Your task to perform on an android device: uninstall "ColorNote Notepad Notes" Image 0: 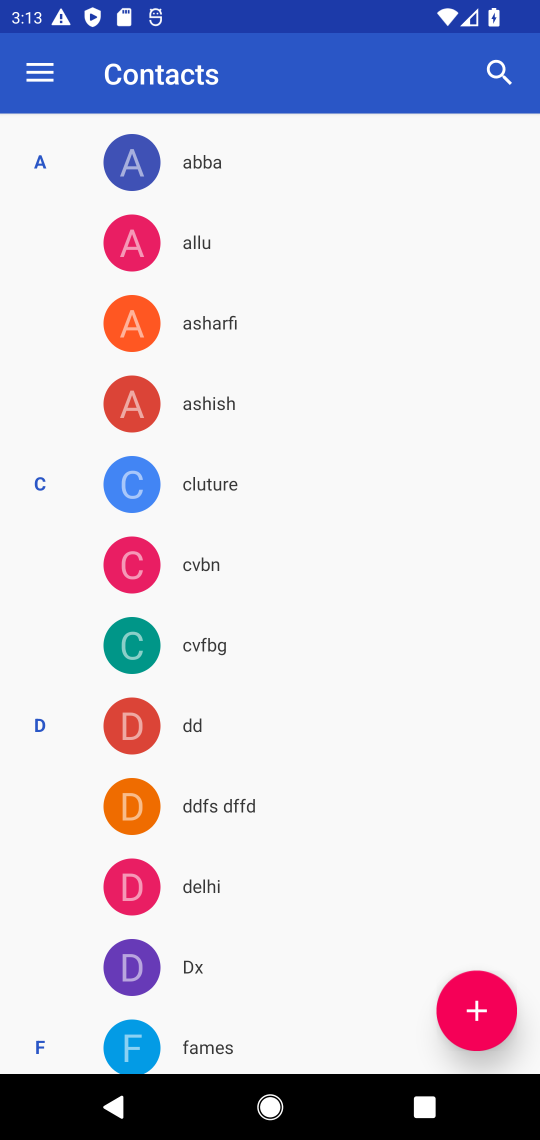
Step 0: press home button
Your task to perform on an android device: uninstall "ColorNote Notepad Notes" Image 1: 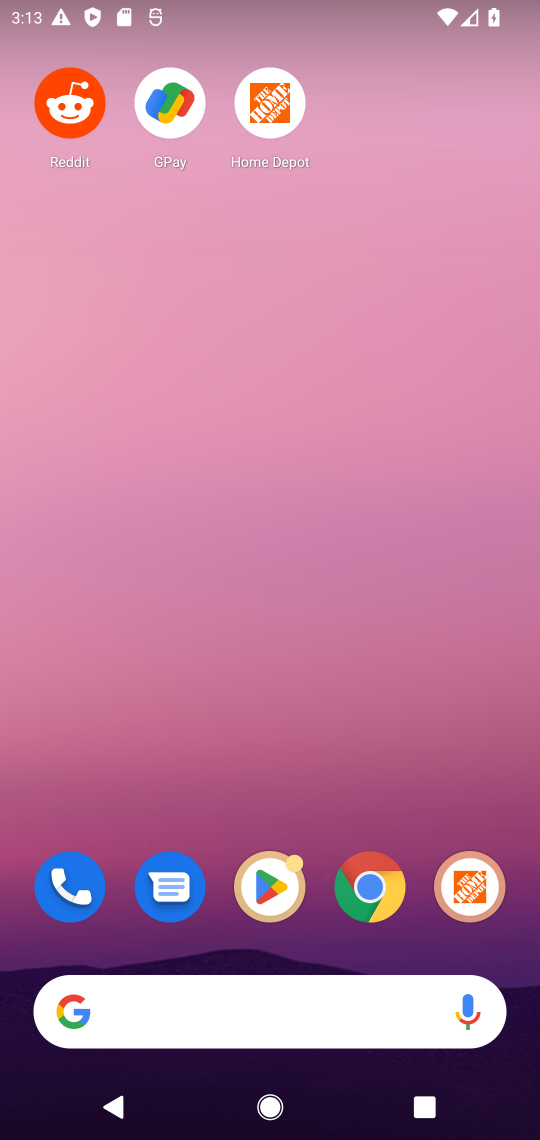
Step 1: click (262, 869)
Your task to perform on an android device: uninstall "ColorNote Notepad Notes" Image 2: 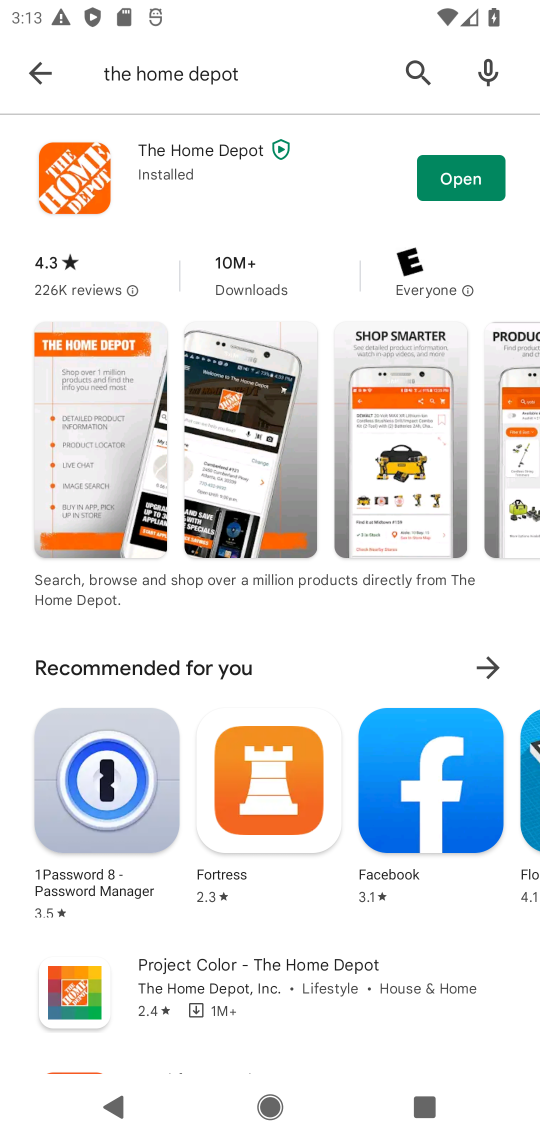
Step 2: click (29, 78)
Your task to perform on an android device: uninstall "ColorNote Notepad Notes" Image 3: 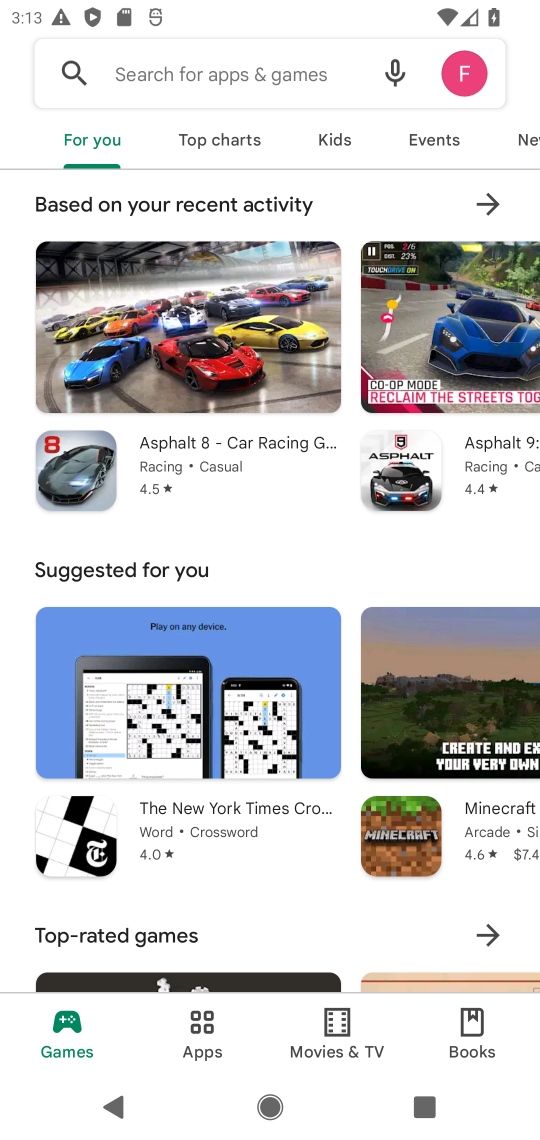
Step 3: click (181, 73)
Your task to perform on an android device: uninstall "ColorNote Notepad Notes" Image 4: 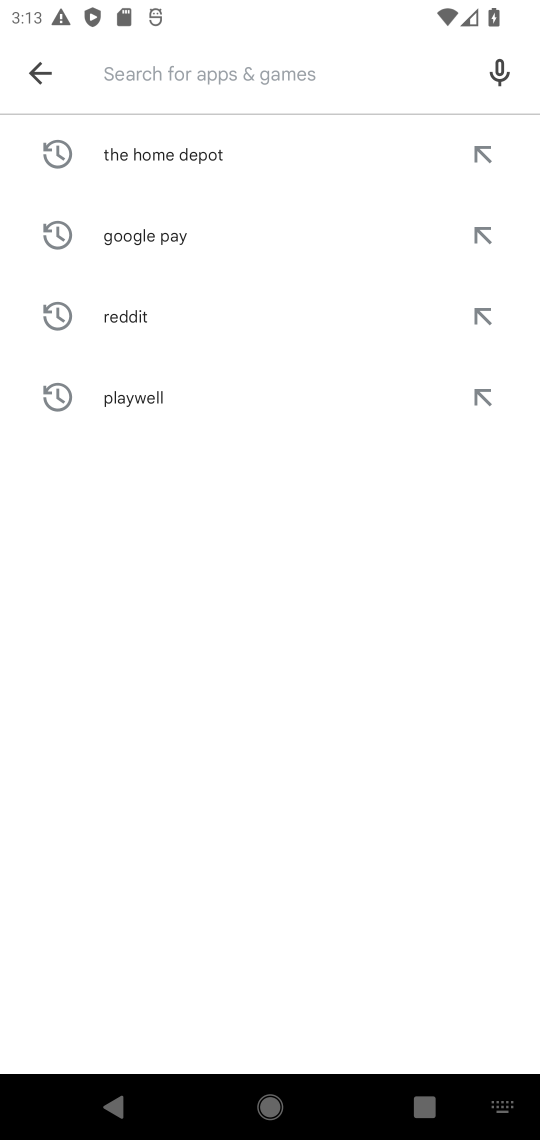
Step 4: type "ColorNote Notepad Notes"
Your task to perform on an android device: uninstall "ColorNote Notepad Notes" Image 5: 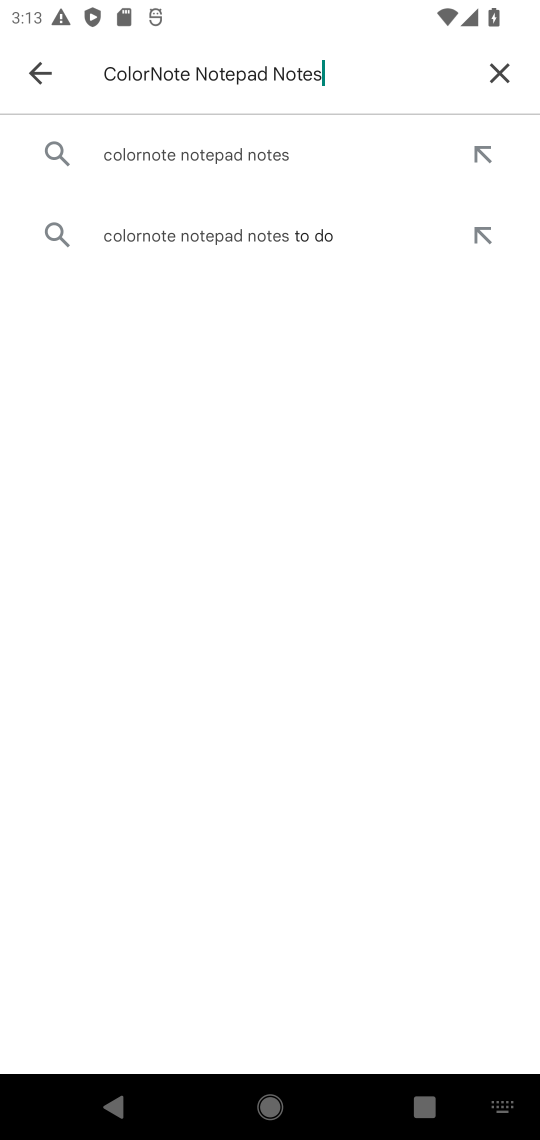
Step 5: click (192, 158)
Your task to perform on an android device: uninstall "ColorNote Notepad Notes" Image 6: 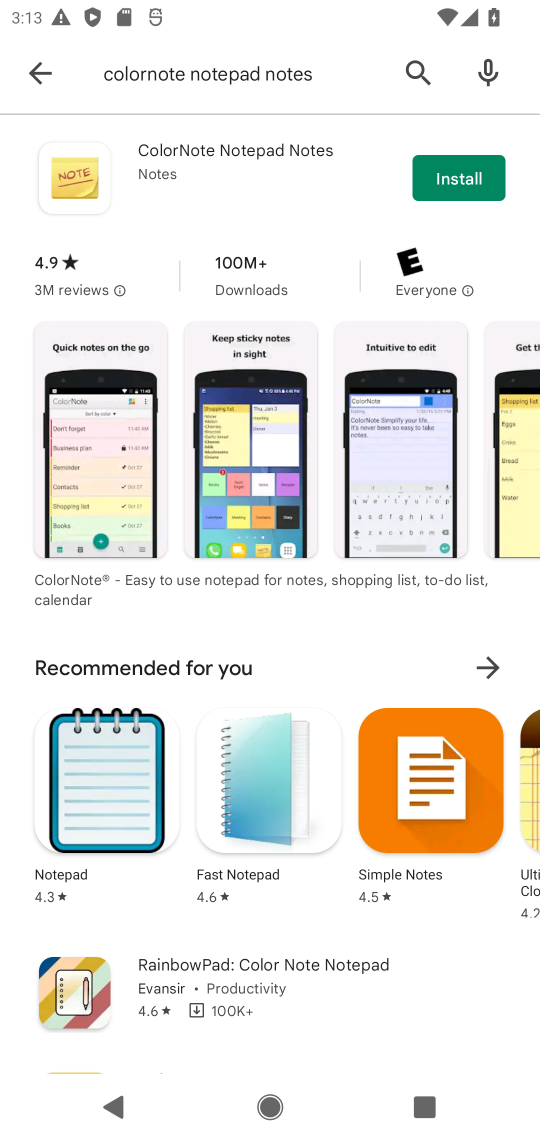
Step 6: task complete